Your task to perform on an android device: Open privacy settings Image 0: 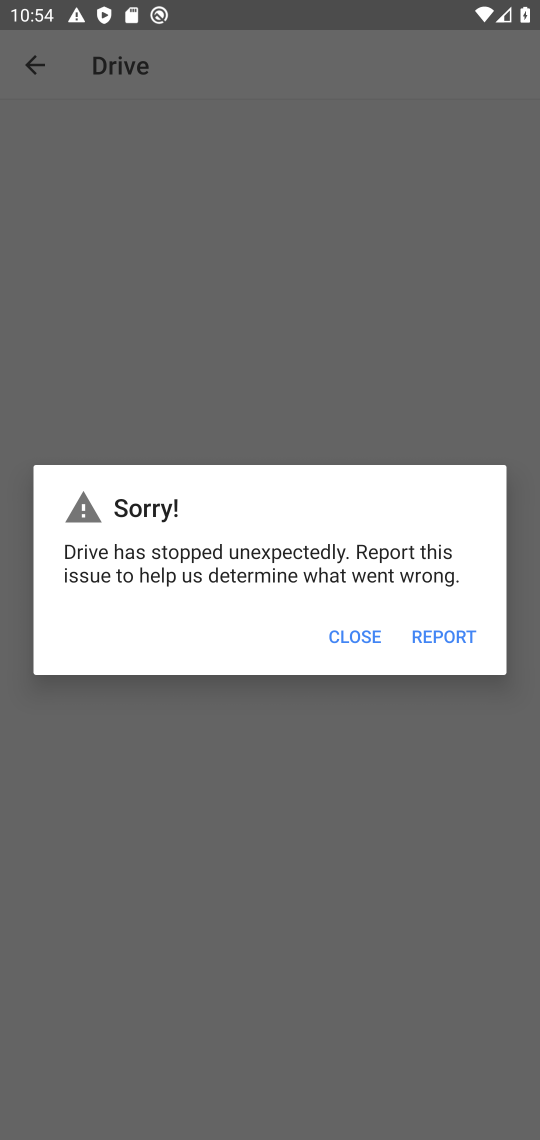
Step 0: click (352, 627)
Your task to perform on an android device: Open privacy settings Image 1: 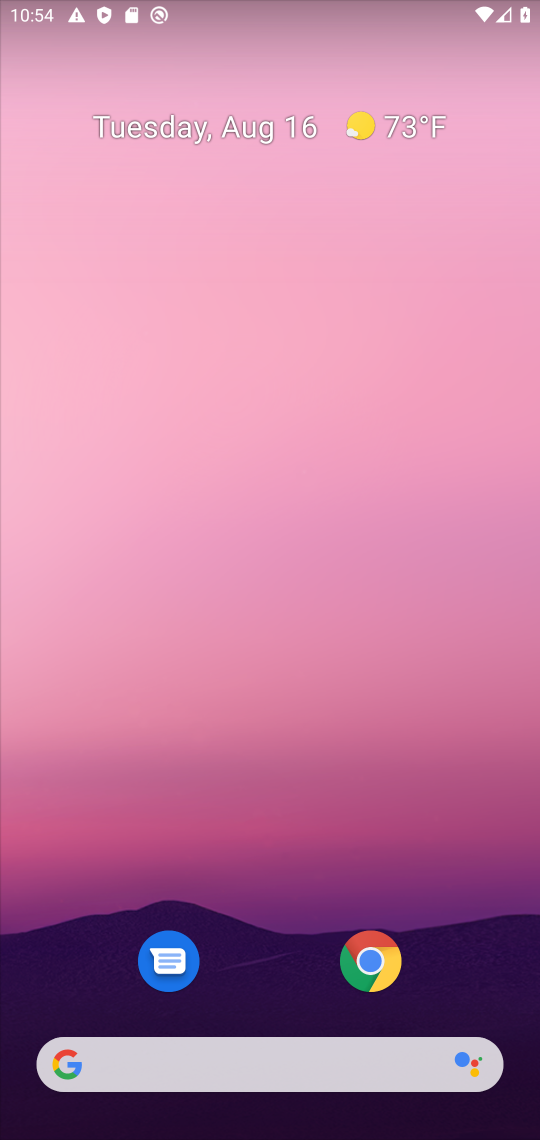
Step 1: drag from (305, 881) to (382, 240)
Your task to perform on an android device: Open privacy settings Image 2: 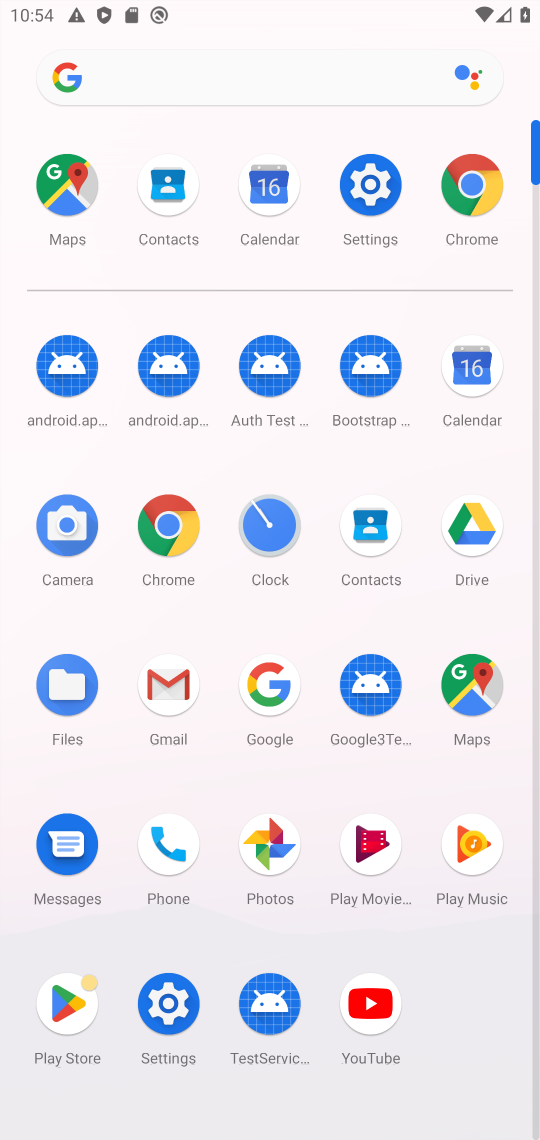
Step 2: click (167, 1000)
Your task to perform on an android device: Open privacy settings Image 3: 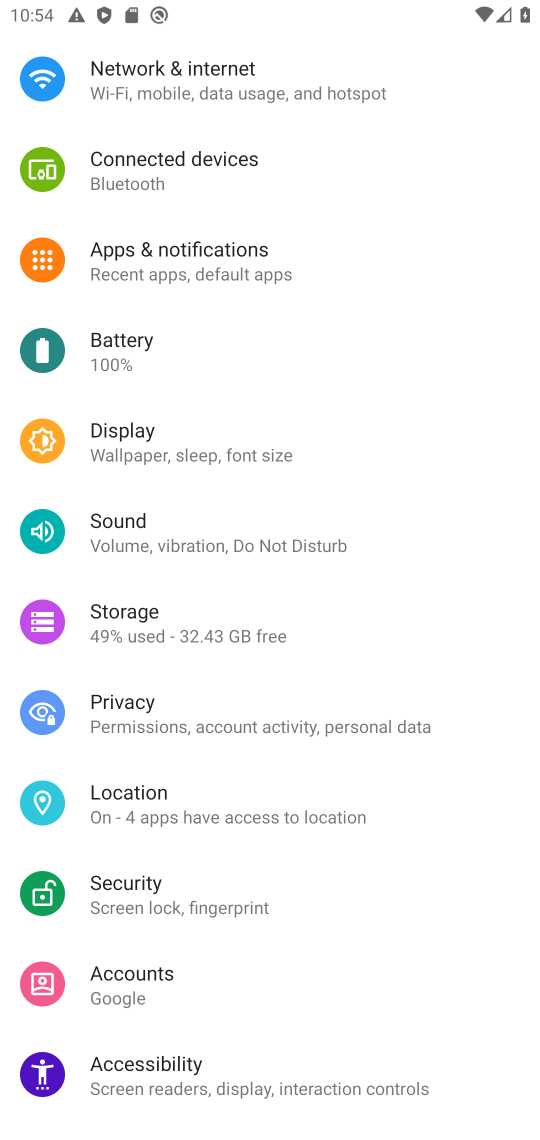
Step 3: task complete